Your task to perform on an android device: Open Google Image 0: 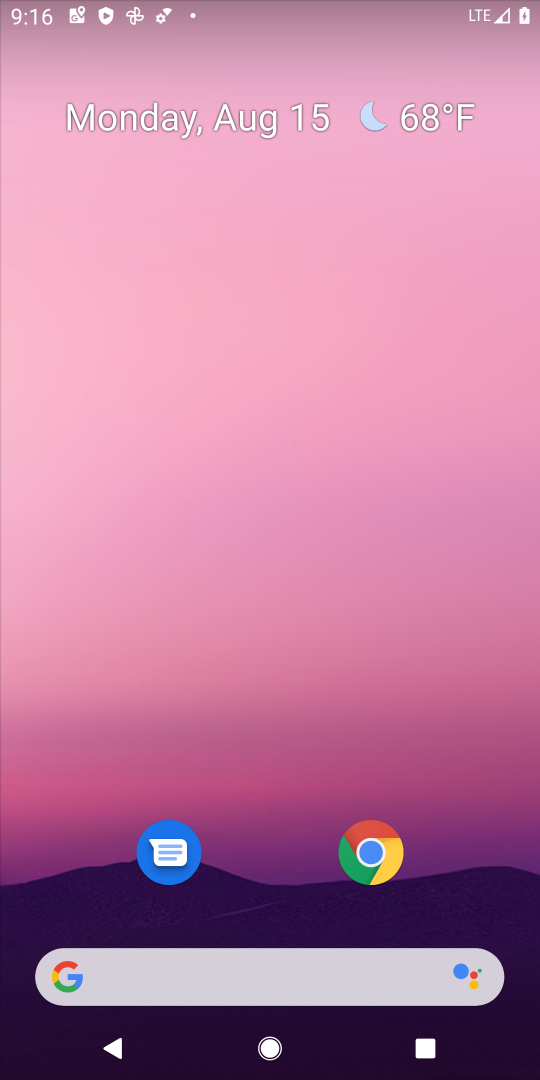
Step 0: drag from (223, 975) to (293, 44)
Your task to perform on an android device: Open Google Image 1: 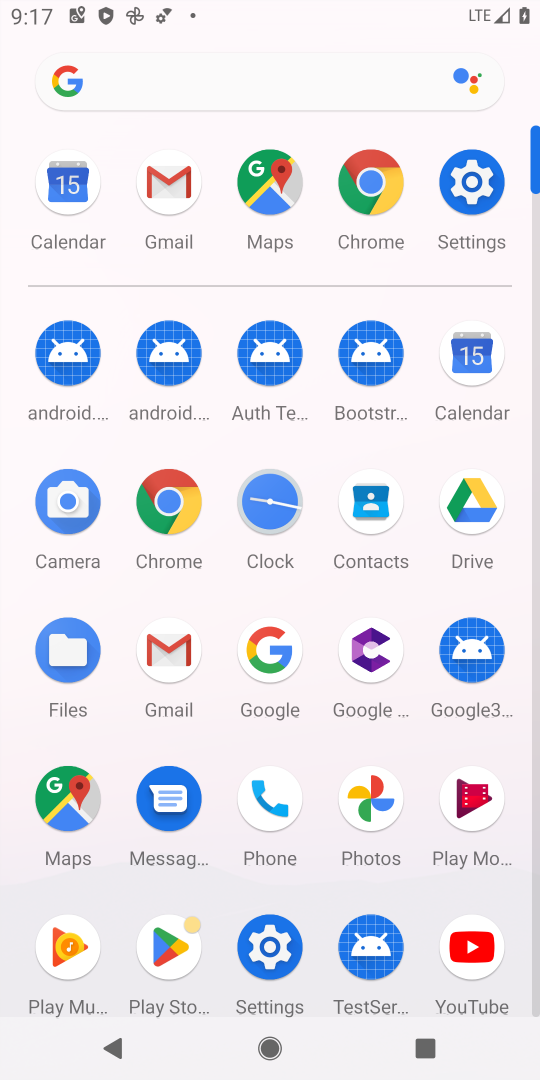
Step 1: click (265, 646)
Your task to perform on an android device: Open Google Image 2: 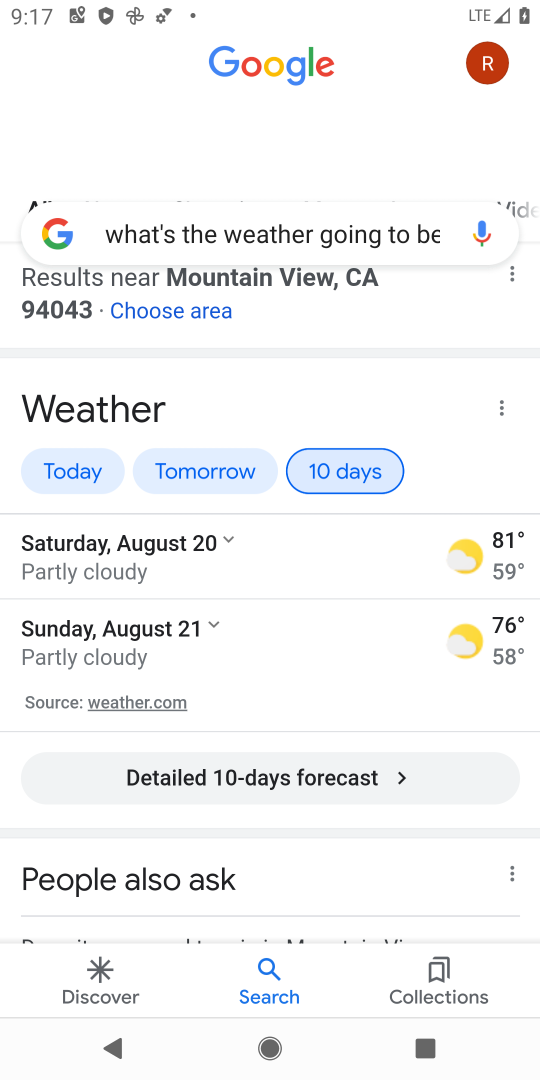
Step 2: click (444, 243)
Your task to perform on an android device: Open Google Image 3: 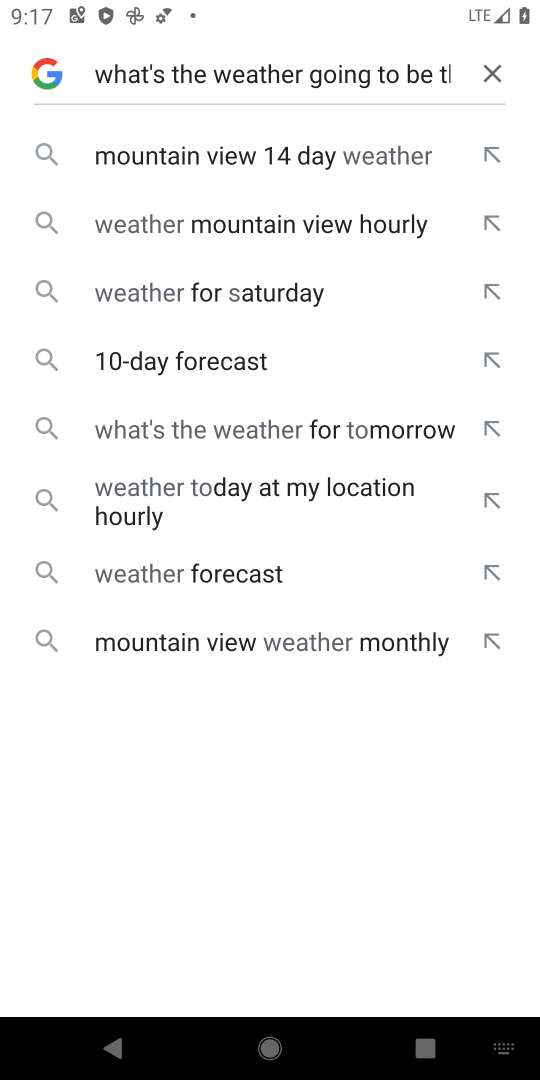
Step 3: click (493, 71)
Your task to perform on an android device: Open Google Image 4: 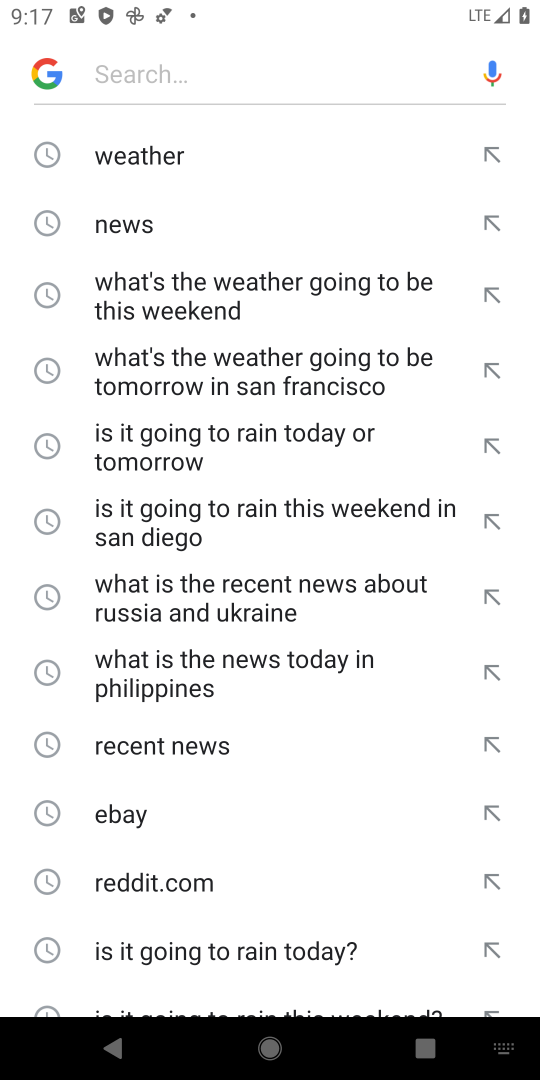
Step 4: task complete